Your task to perform on an android device: Add bose soundlink mini to the cart on walmart, then select checkout. Image 0: 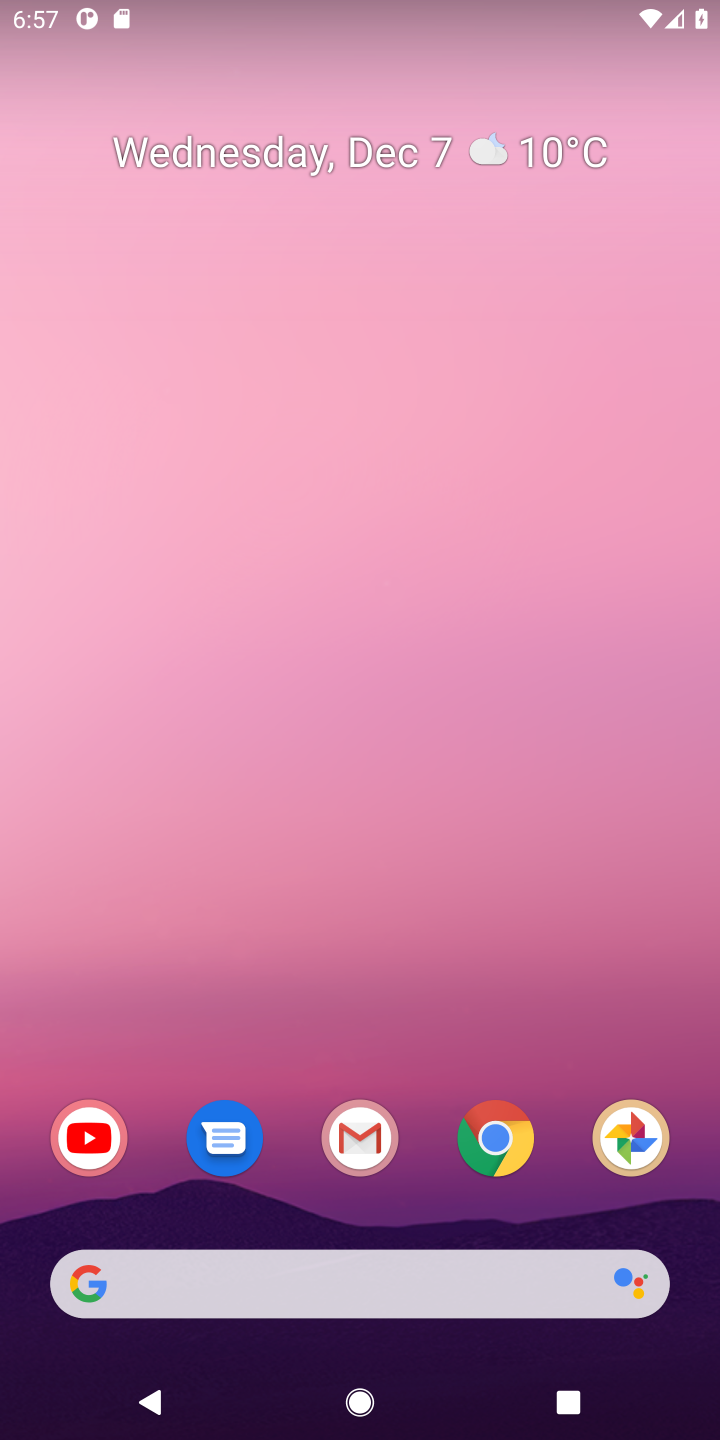
Step 0: press home button
Your task to perform on an android device: Add bose soundlink mini to the cart on walmart, then select checkout. Image 1: 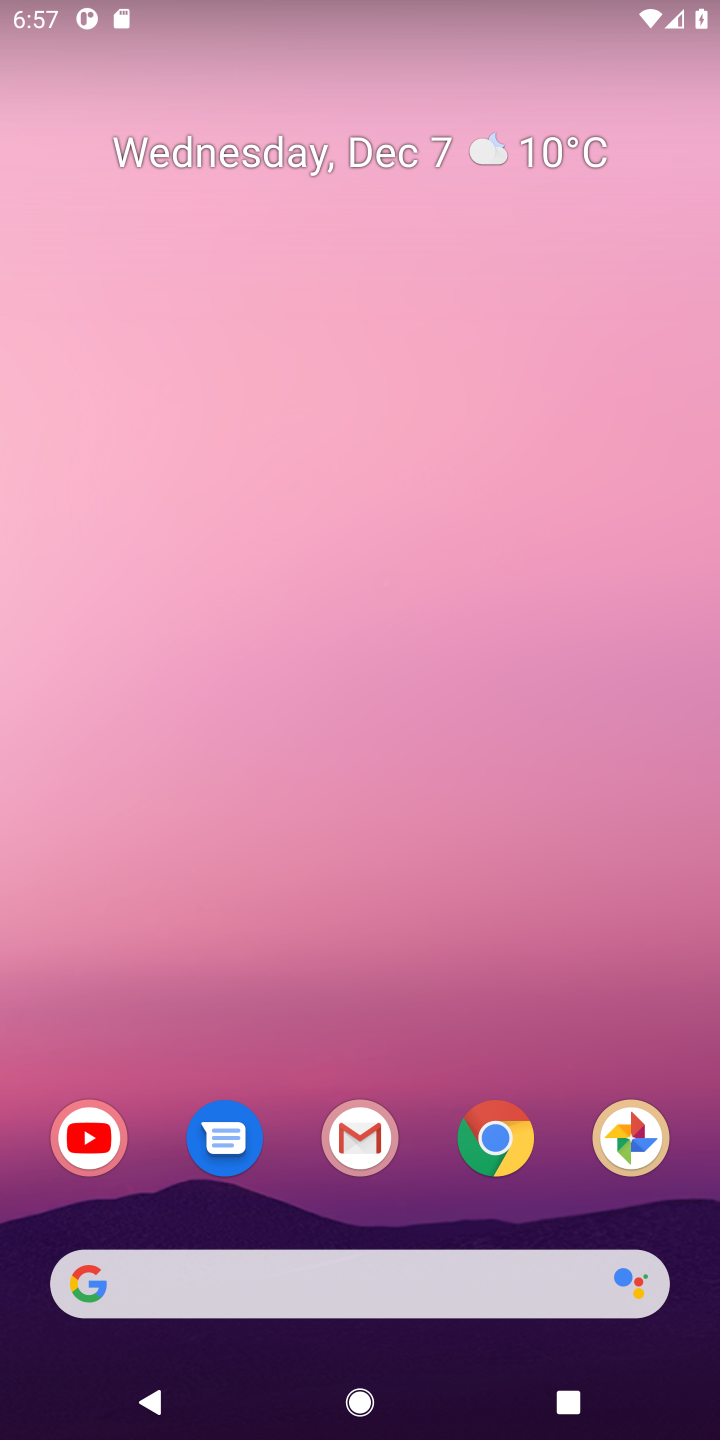
Step 1: click (224, 1276)
Your task to perform on an android device: Add bose soundlink mini to the cart on walmart, then select checkout. Image 2: 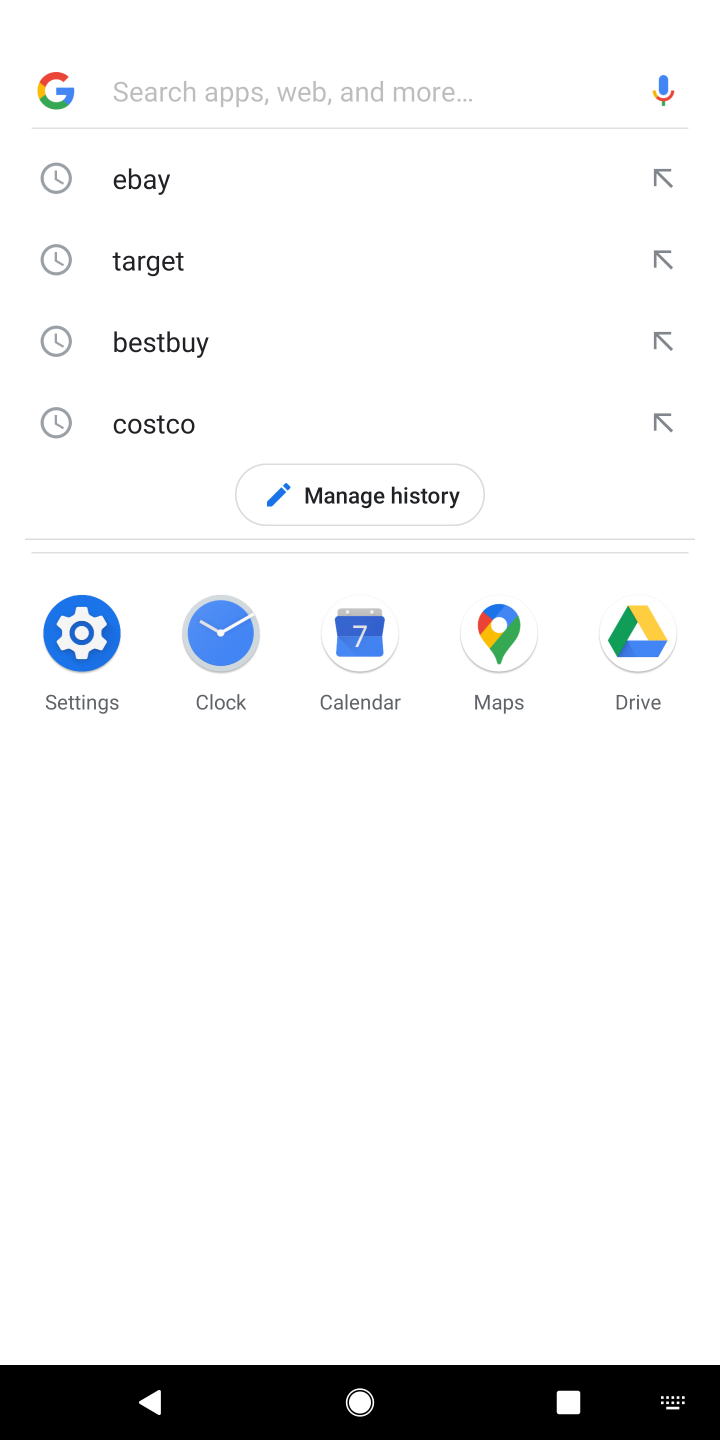
Step 2: type " walmart"
Your task to perform on an android device: Add bose soundlink mini to the cart on walmart, then select checkout. Image 3: 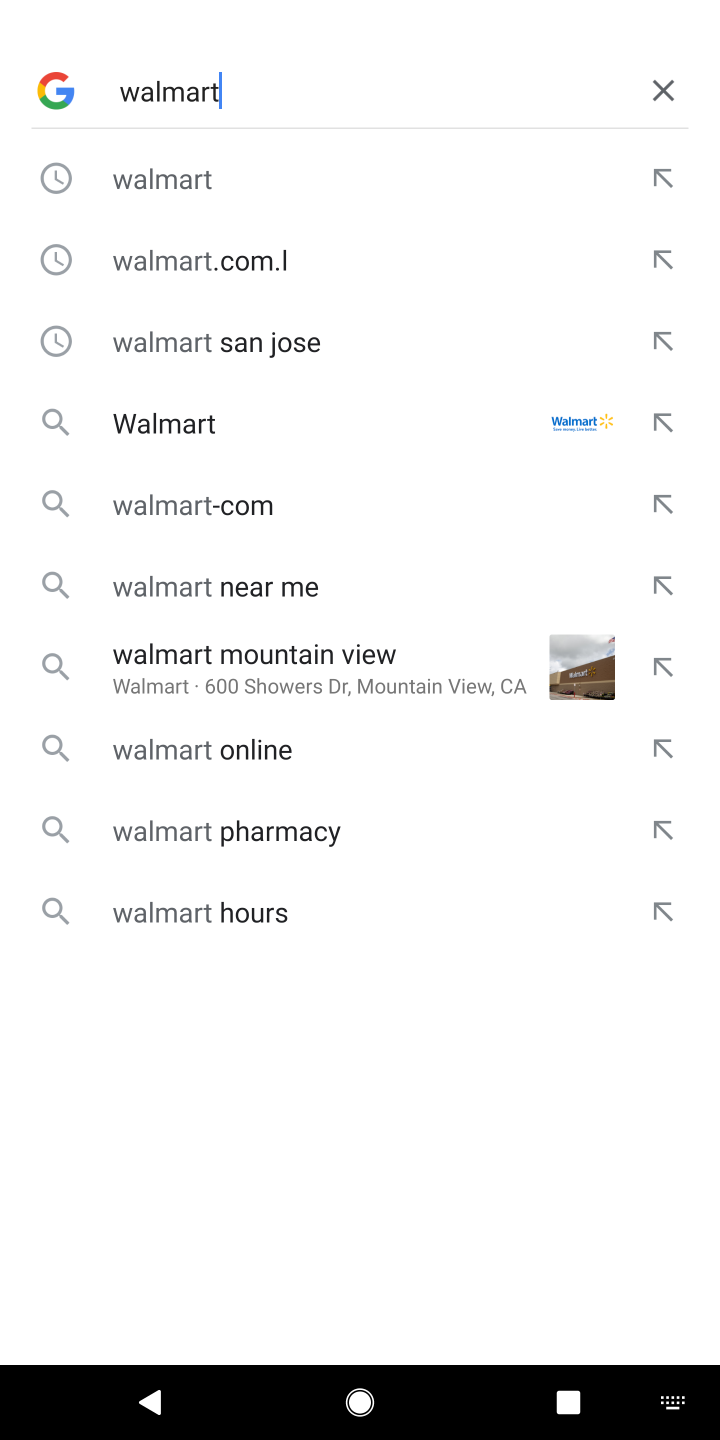
Step 3: press enter
Your task to perform on an android device: Add bose soundlink mini to the cart on walmart, then select checkout. Image 4: 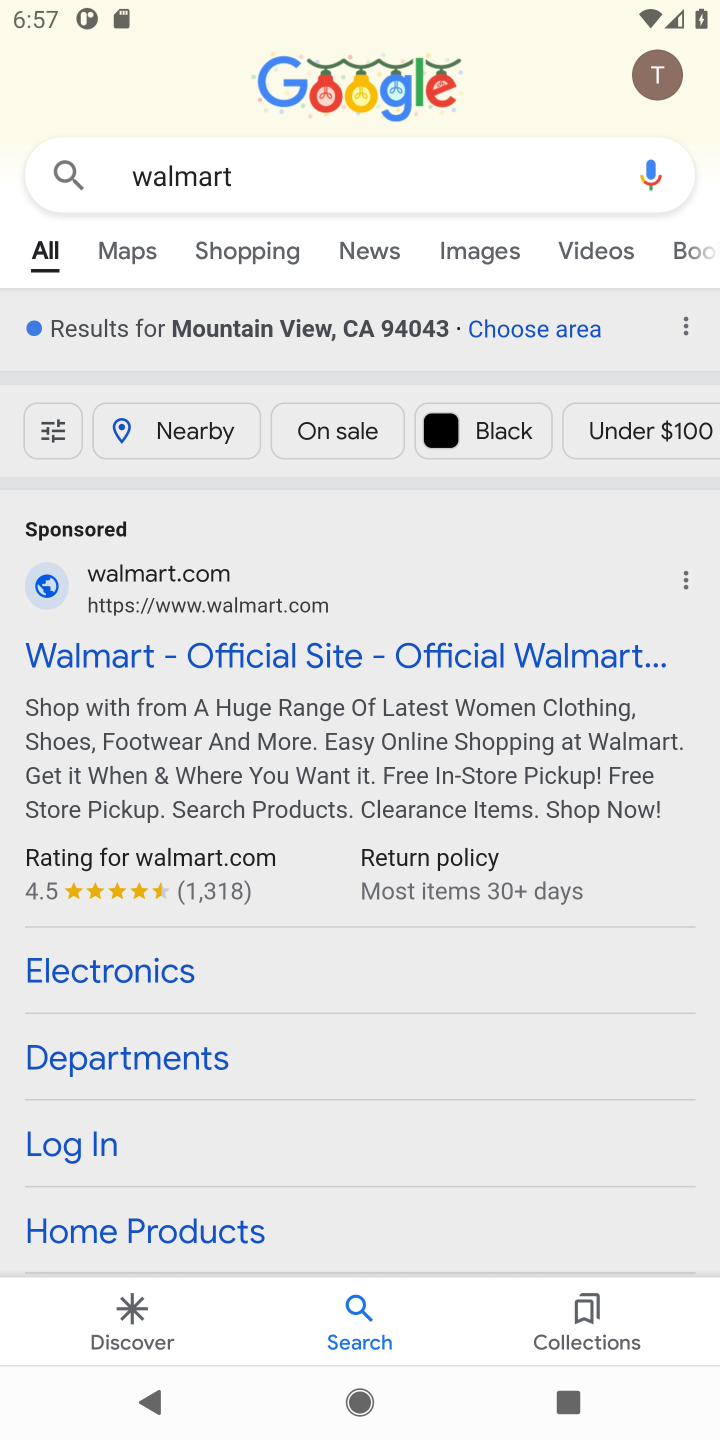
Step 4: click (448, 660)
Your task to perform on an android device: Add bose soundlink mini to the cart on walmart, then select checkout. Image 5: 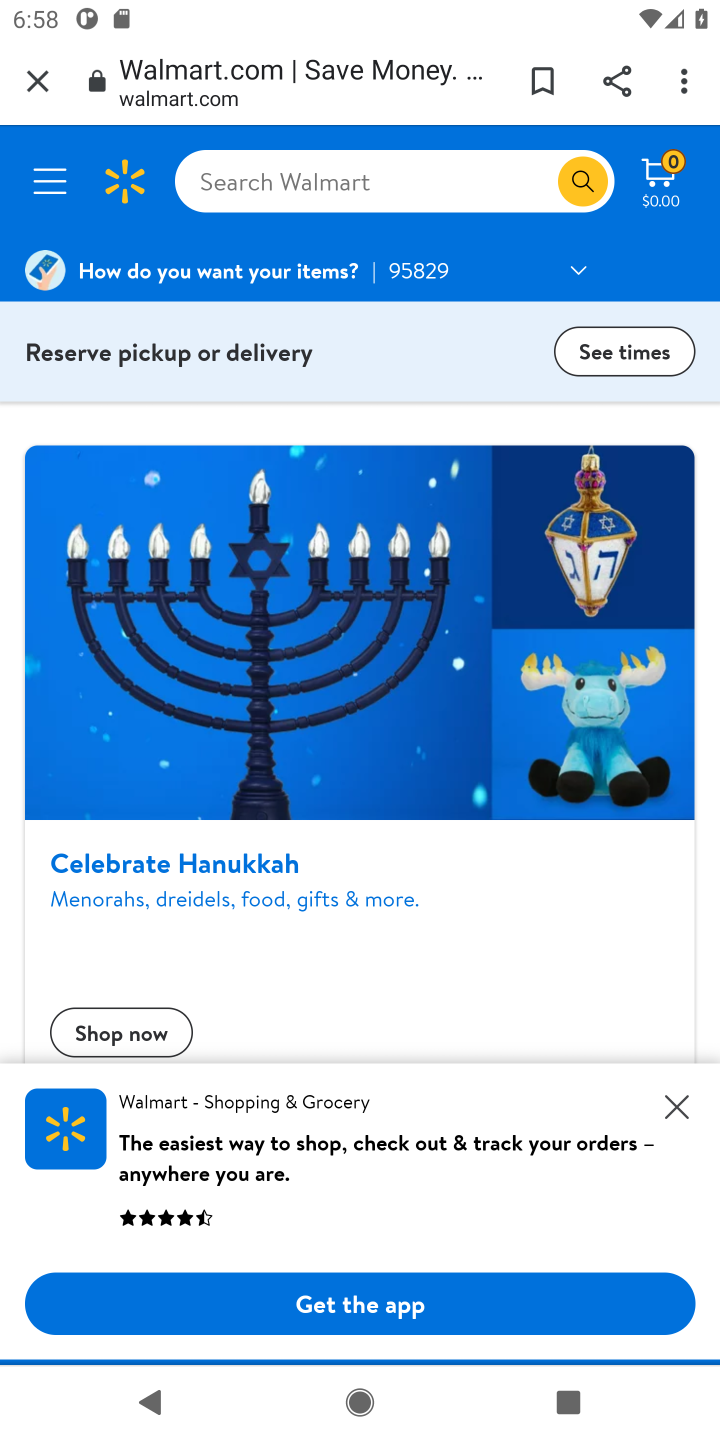
Step 5: click (243, 169)
Your task to perform on an android device: Add bose soundlink mini to the cart on walmart, then select checkout. Image 6: 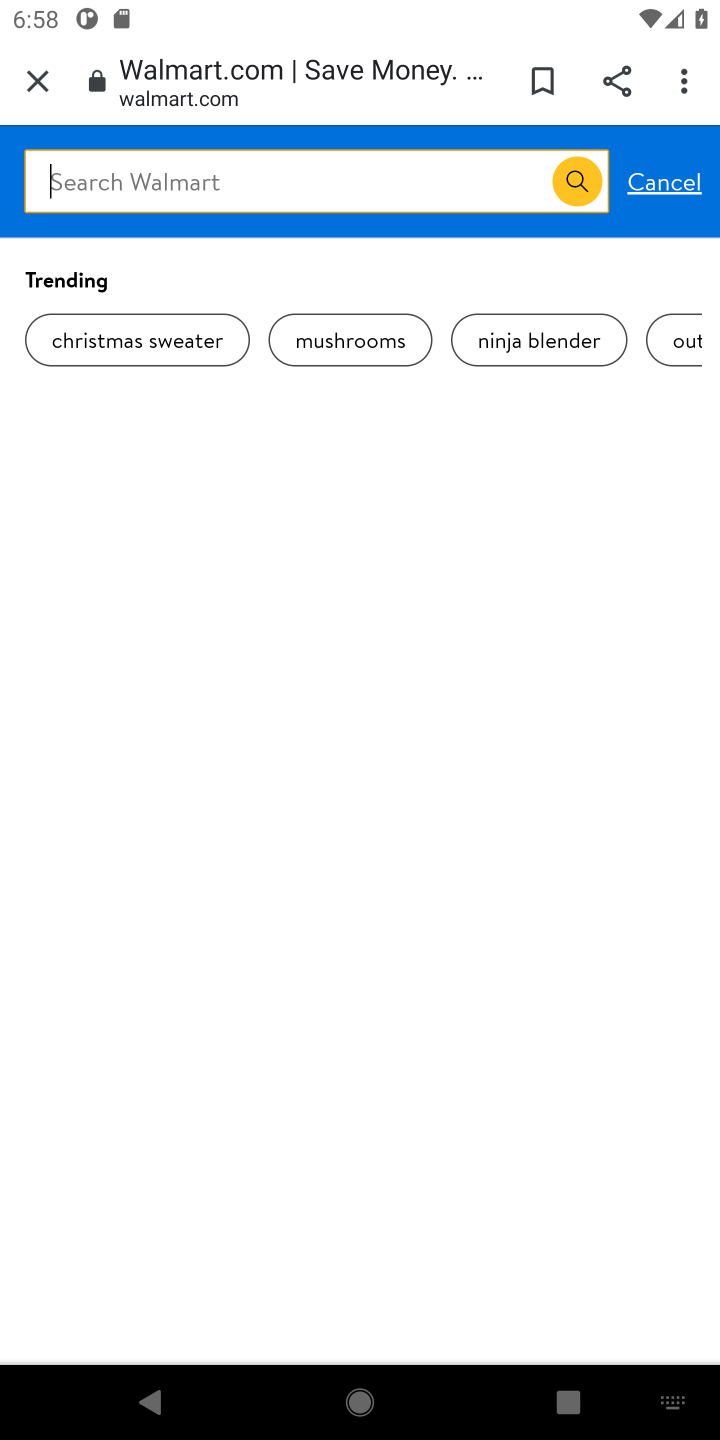
Step 6: type "bose soundlink mini"
Your task to perform on an android device: Add bose soundlink mini to the cart on walmart, then select checkout. Image 7: 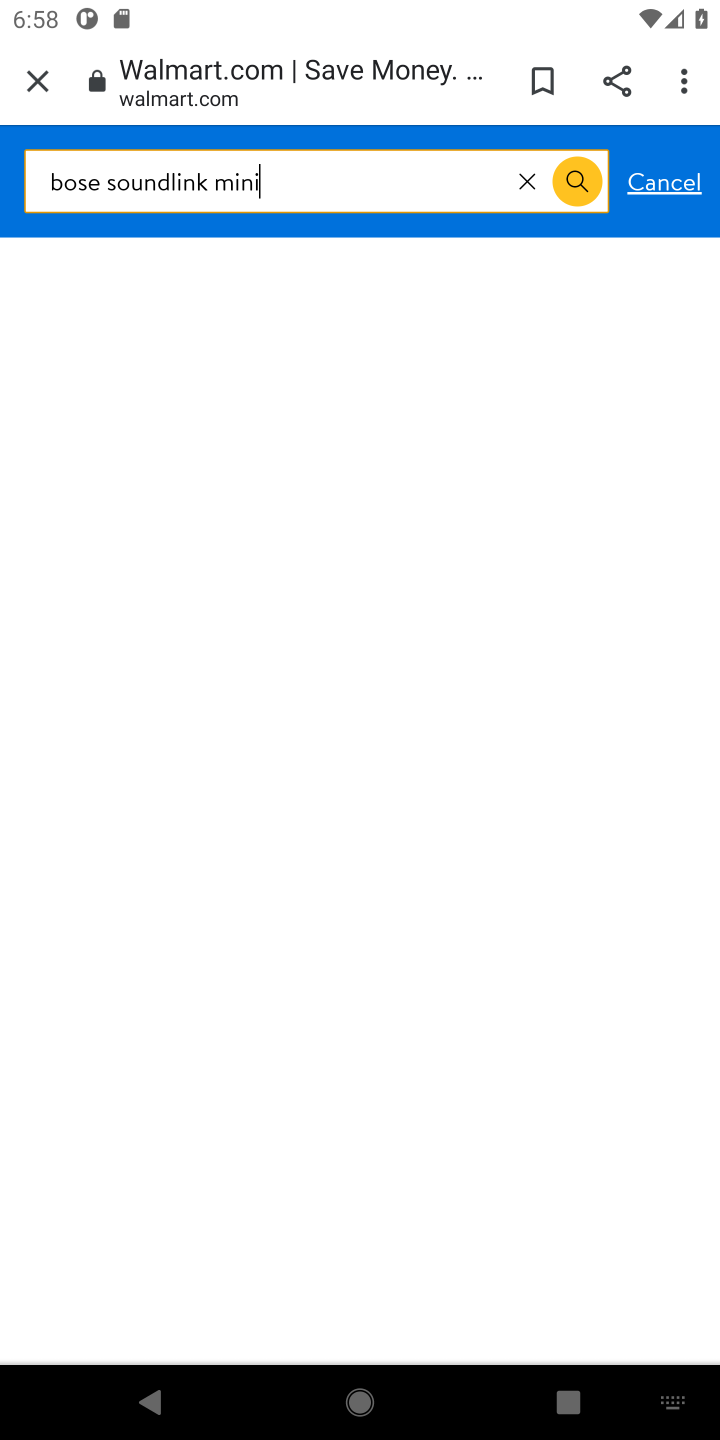
Step 7: press enter
Your task to perform on an android device: Add bose soundlink mini to the cart on walmart, then select checkout. Image 8: 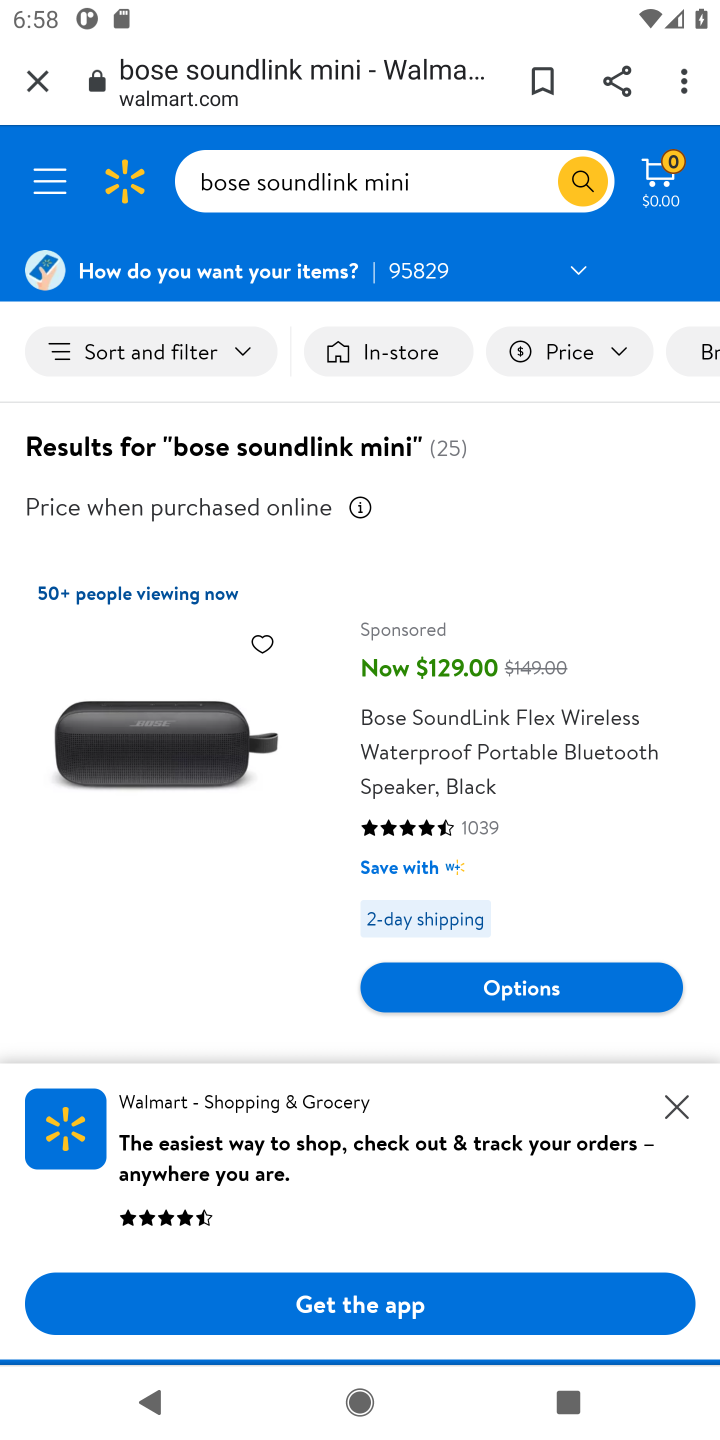
Step 8: click (678, 1098)
Your task to perform on an android device: Add bose soundlink mini to the cart on walmart, then select checkout. Image 9: 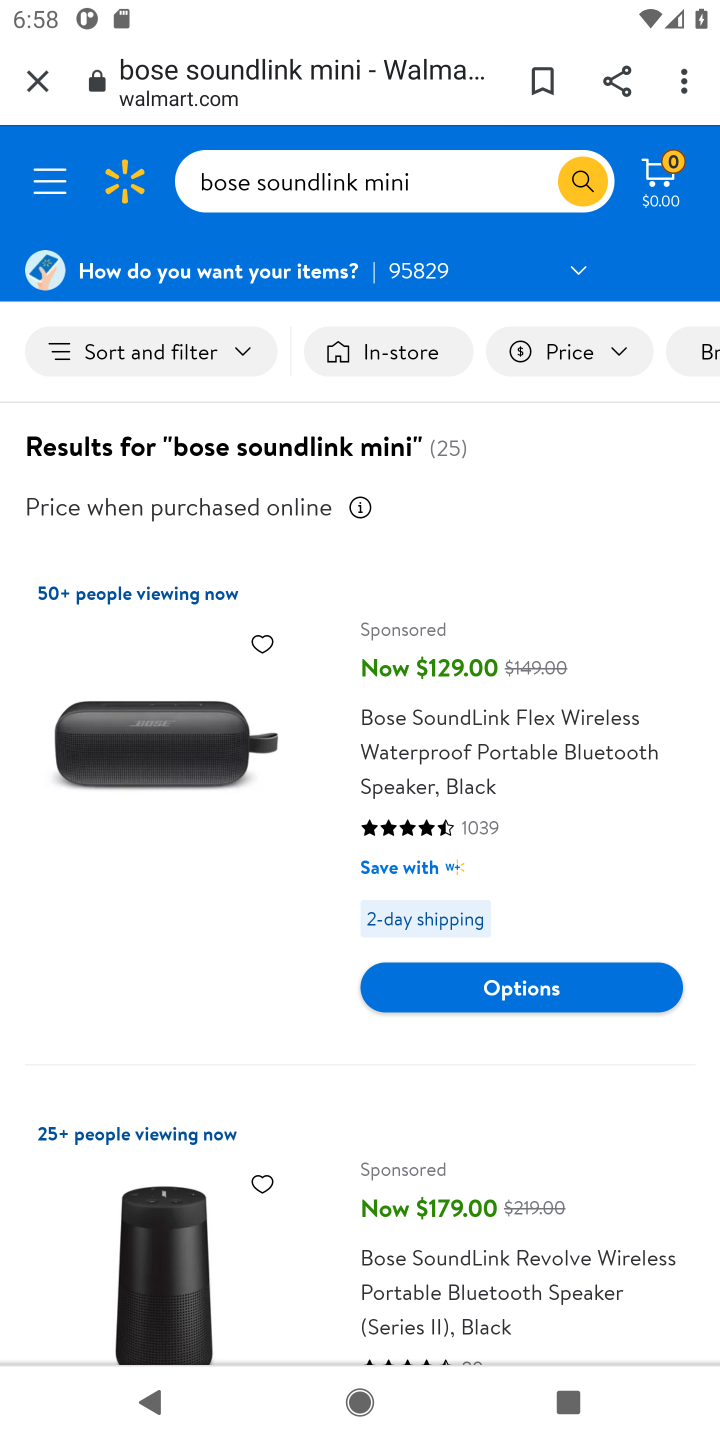
Step 9: click (484, 741)
Your task to perform on an android device: Add bose soundlink mini to the cart on walmart, then select checkout. Image 10: 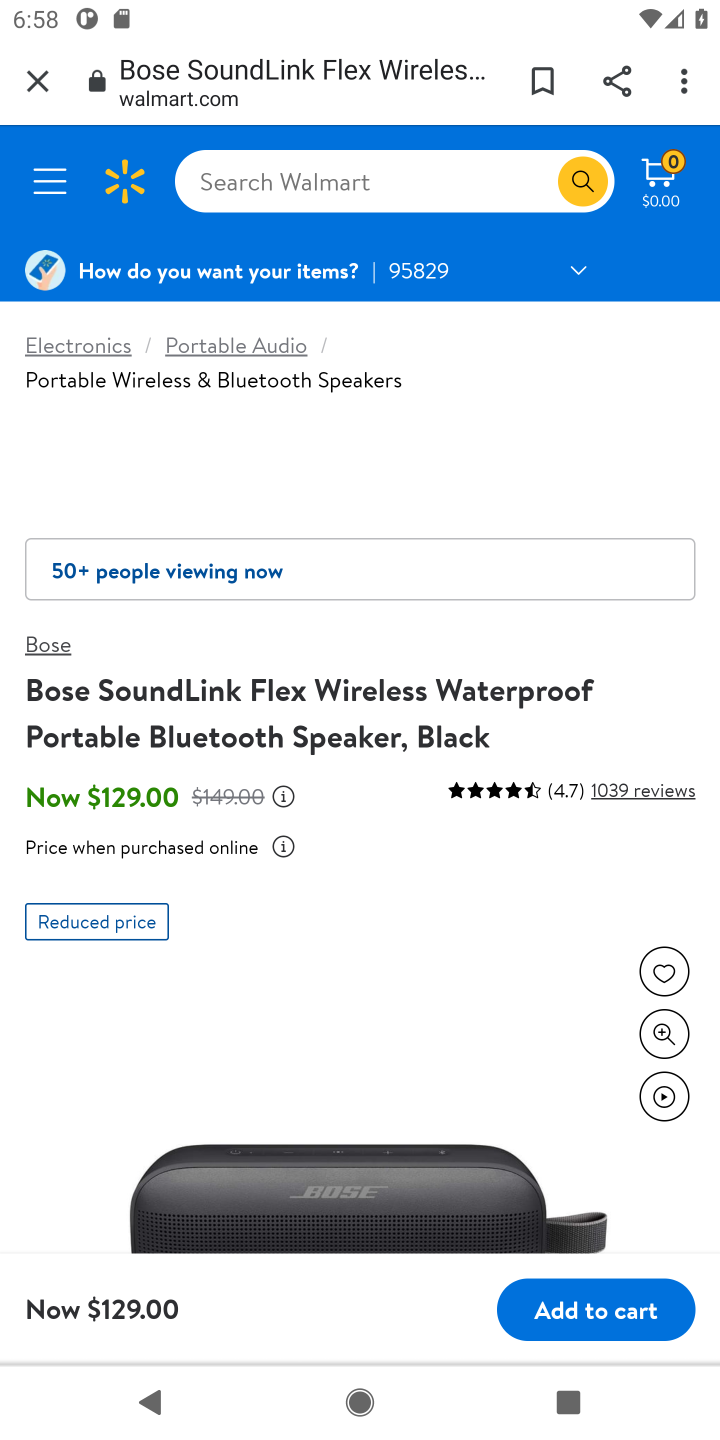
Step 10: click (603, 1317)
Your task to perform on an android device: Add bose soundlink mini to the cart on walmart, then select checkout. Image 11: 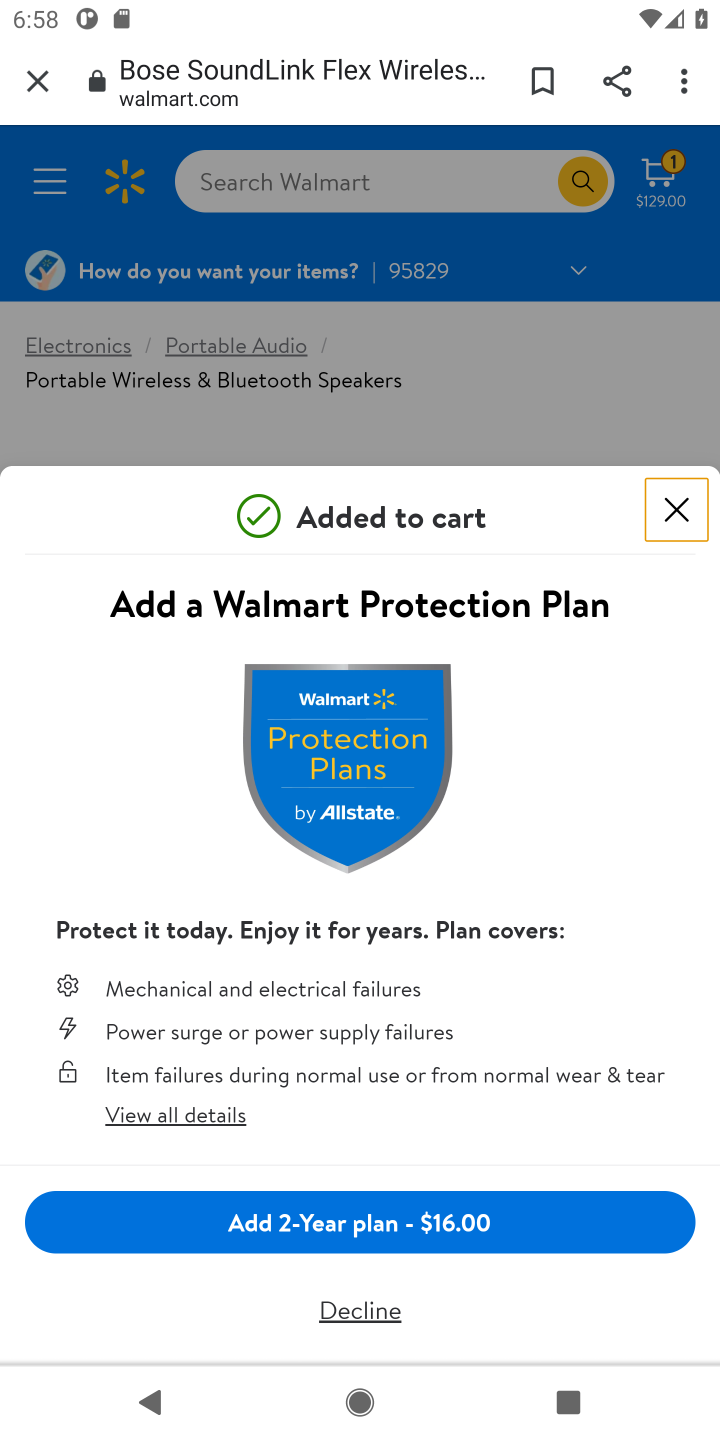
Step 11: click (326, 1306)
Your task to perform on an android device: Add bose soundlink mini to the cart on walmart, then select checkout. Image 12: 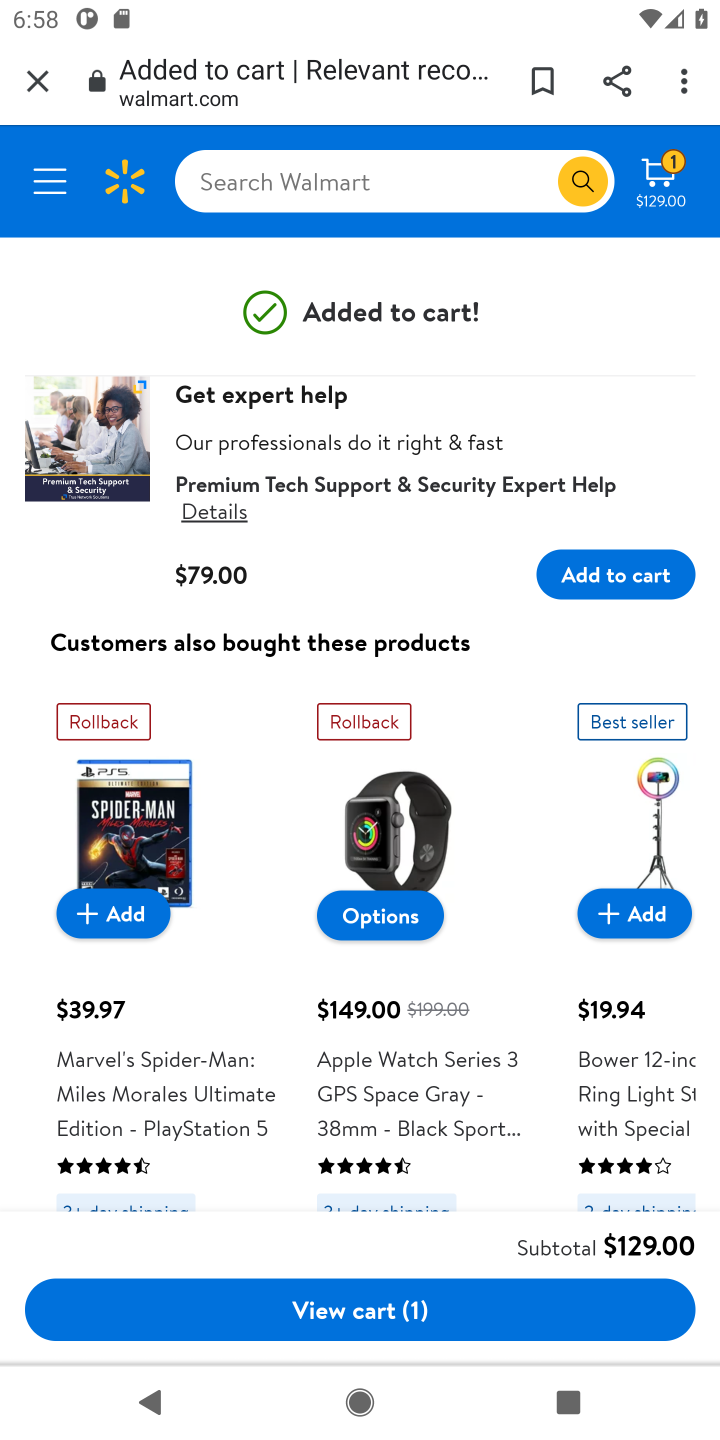
Step 12: click (421, 1312)
Your task to perform on an android device: Add bose soundlink mini to the cart on walmart, then select checkout. Image 13: 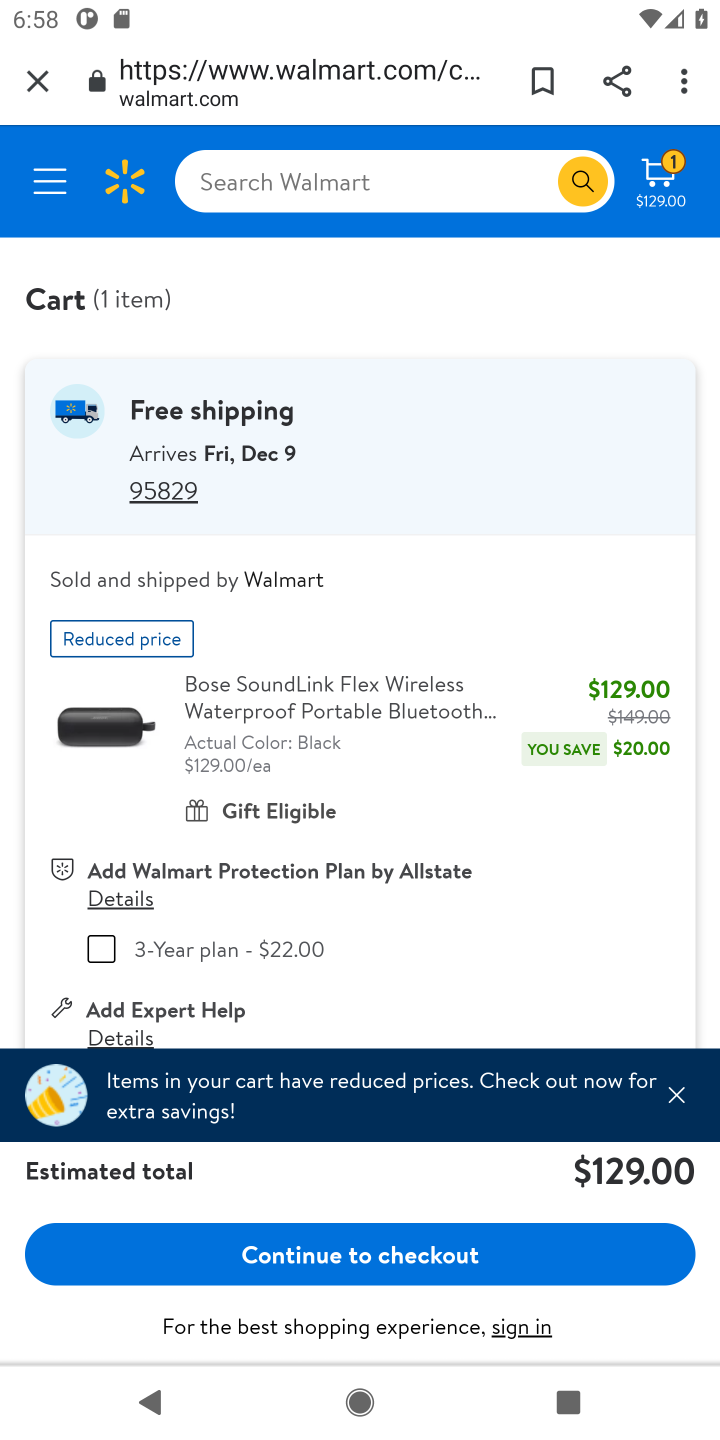
Step 13: click (421, 1262)
Your task to perform on an android device: Add bose soundlink mini to the cart on walmart, then select checkout. Image 14: 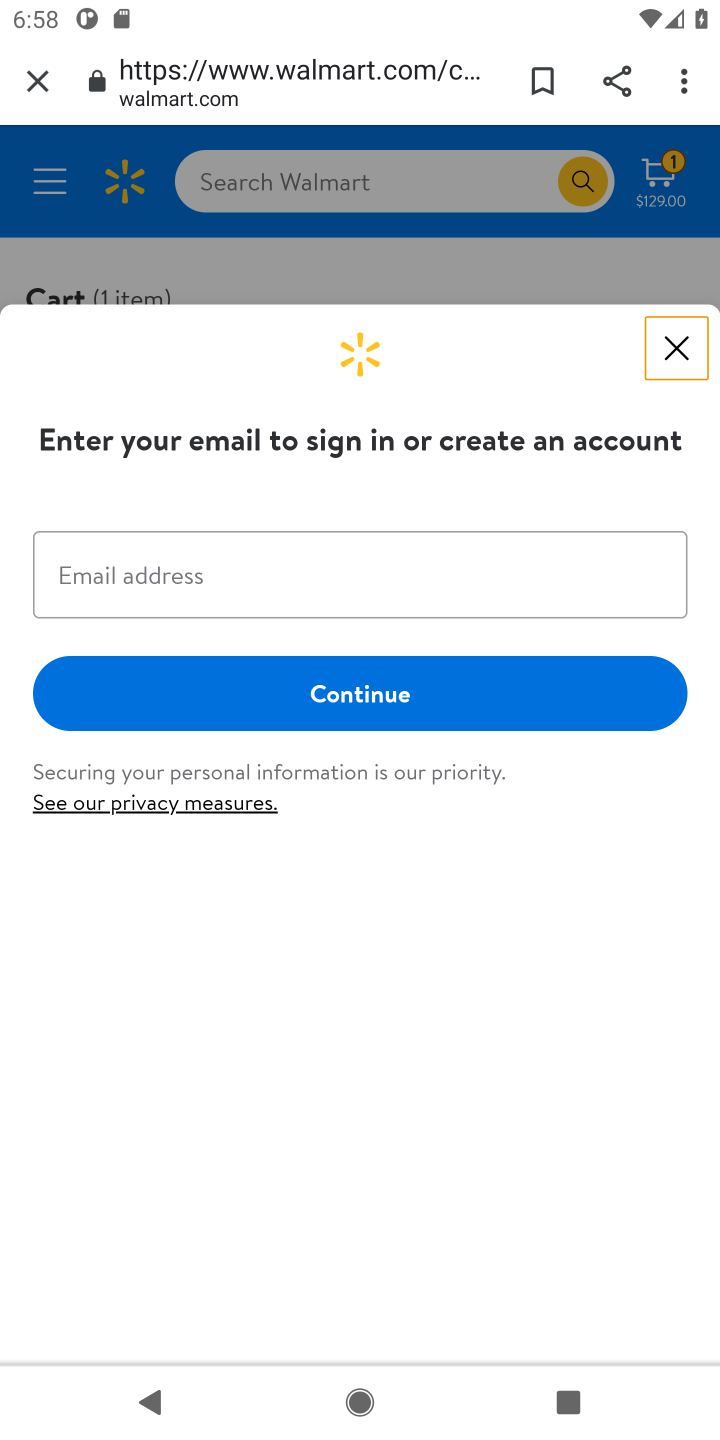
Step 14: task complete